Your task to perform on an android device: turn off notifications in google photos Image 0: 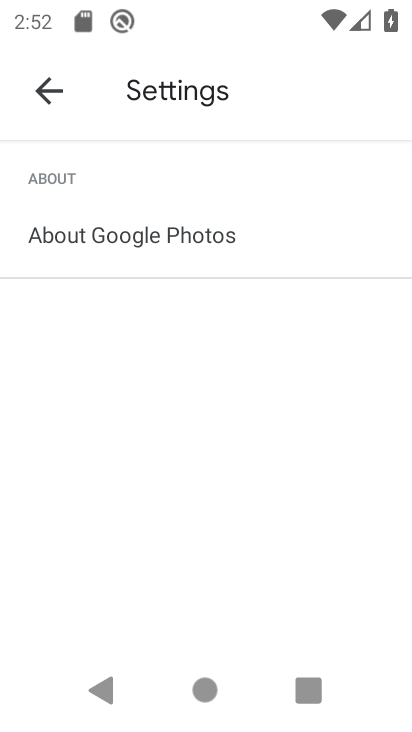
Step 0: press home button
Your task to perform on an android device: turn off notifications in google photos Image 1: 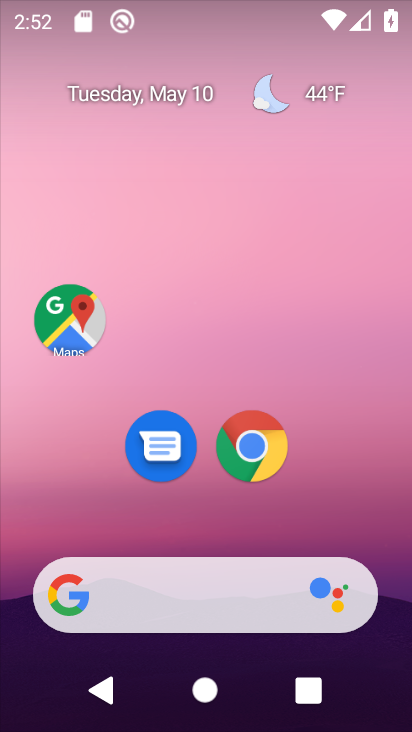
Step 1: drag from (347, 469) to (365, 56)
Your task to perform on an android device: turn off notifications in google photos Image 2: 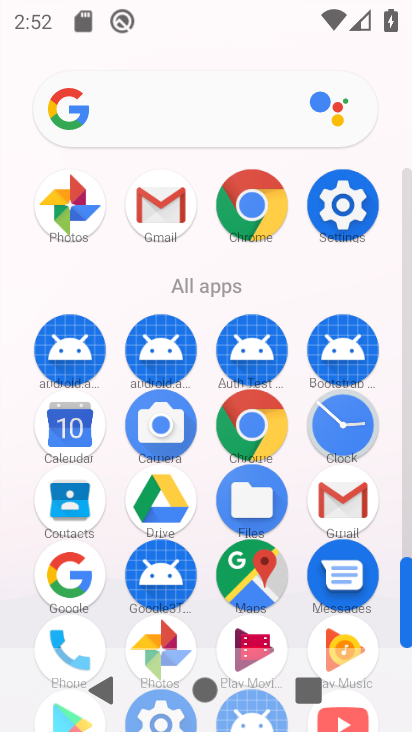
Step 2: click (68, 212)
Your task to perform on an android device: turn off notifications in google photos Image 3: 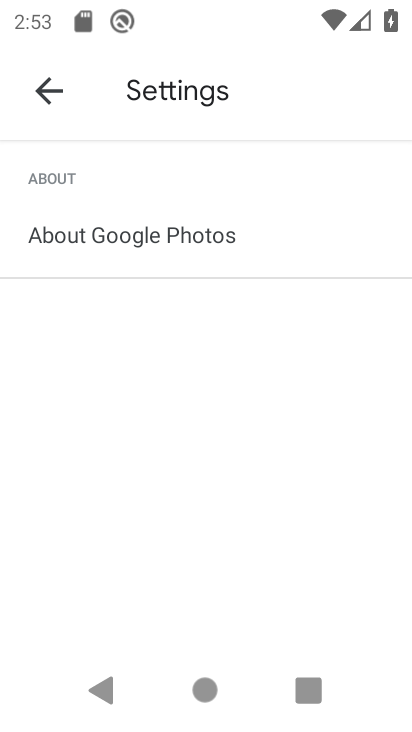
Step 3: click (54, 112)
Your task to perform on an android device: turn off notifications in google photos Image 4: 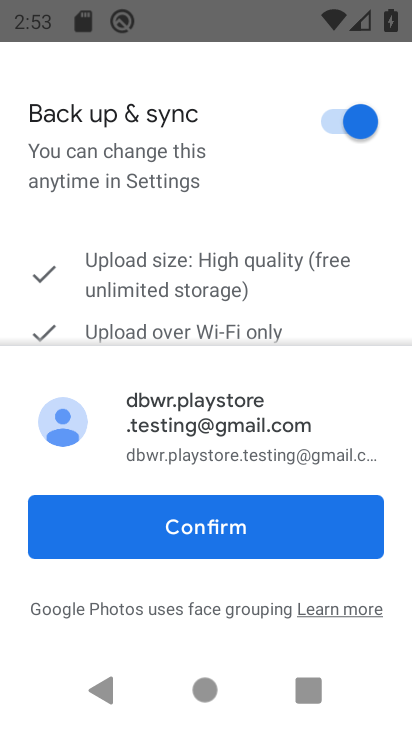
Step 4: click (240, 537)
Your task to perform on an android device: turn off notifications in google photos Image 5: 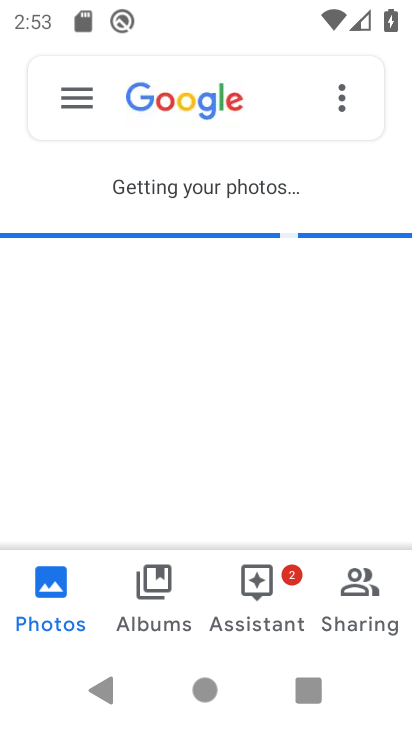
Step 5: click (87, 112)
Your task to perform on an android device: turn off notifications in google photos Image 6: 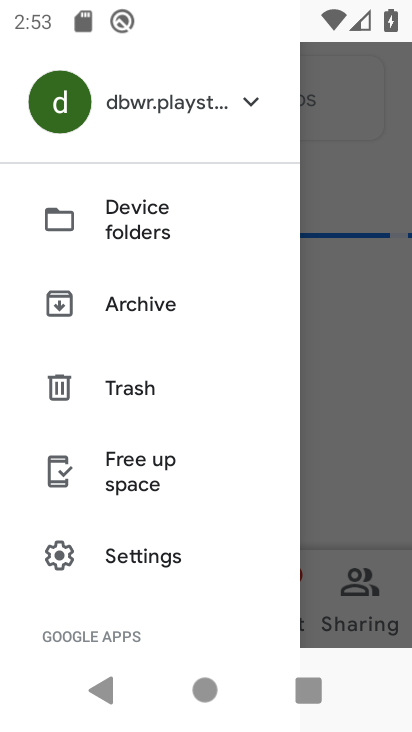
Step 6: drag from (103, 561) to (151, 174)
Your task to perform on an android device: turn off notifications in google photos Image 7: 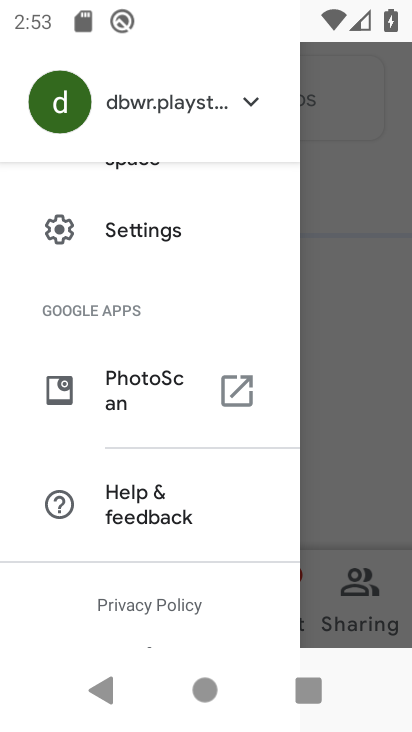
Step 7: drag from (186, 556) to (197, 164)
Your task to perform on an android device: turn off notifications in google photos Image 8: 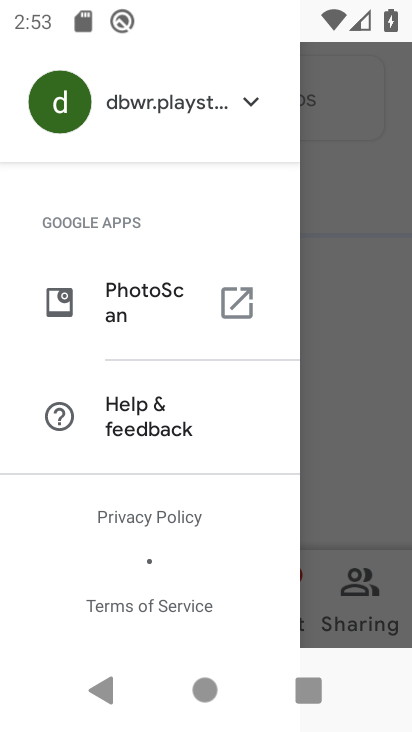
Step 8: drag from (160, 551) to (198, 191)
Your task to perform on an android device: turn off notifications in google photos Image 9: 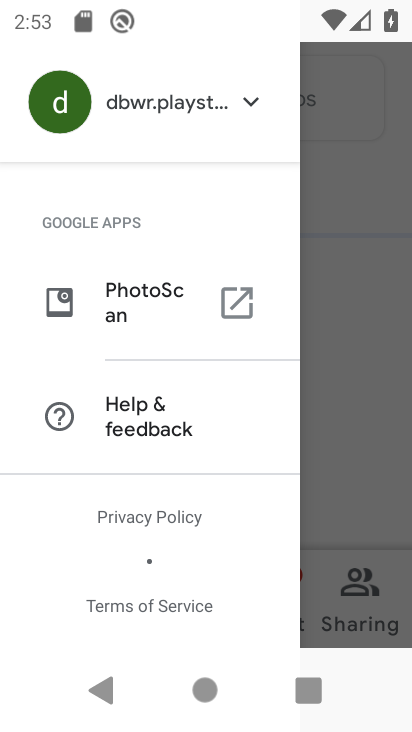
Step 9: drag from (208, 232) to (168, 544)
Your task to perform on an android device: turn off notifications in google photos Image 10: 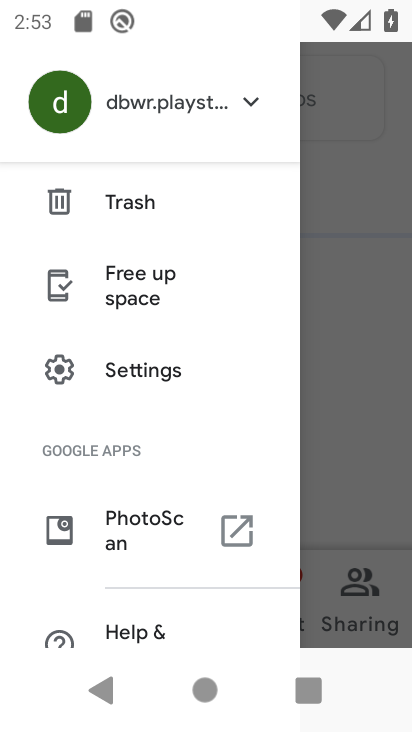
Step 10: click (132, 375)
Your task to perform on an android device: turn off notifications in google photos Image 11: 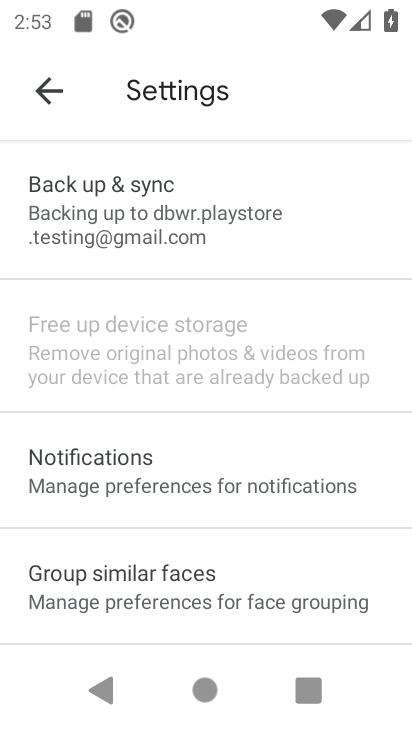
Step 11: click (123, 490)
Your task to perform on an android device: turn off notifications in google photos Image 12: 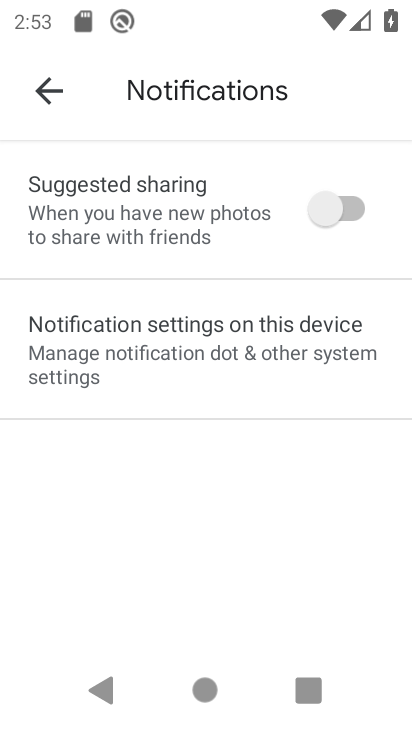
Step 12: task complete